Your task to perform on an android device: Show me productivity apps on the Play Store Image 0: 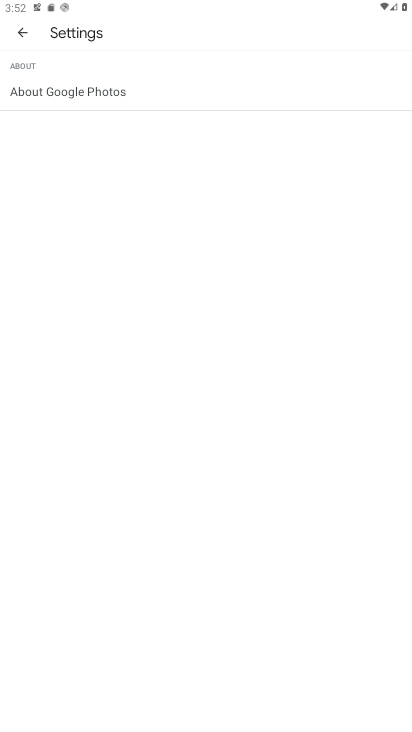
Step 0: press home button
Your task to perform on an android device: Show me productivity apps on the Play Store Image 1: 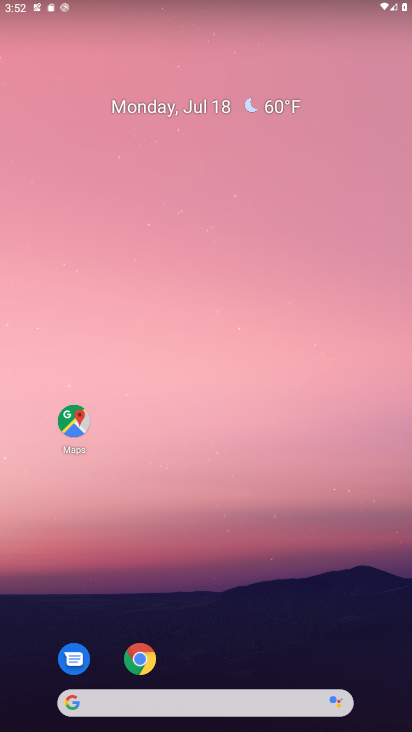
Step 1: drag from (151, 721) to (229, 56)
Your task to perform on an android device: Show me productivity apps on the Play Store Image 2: 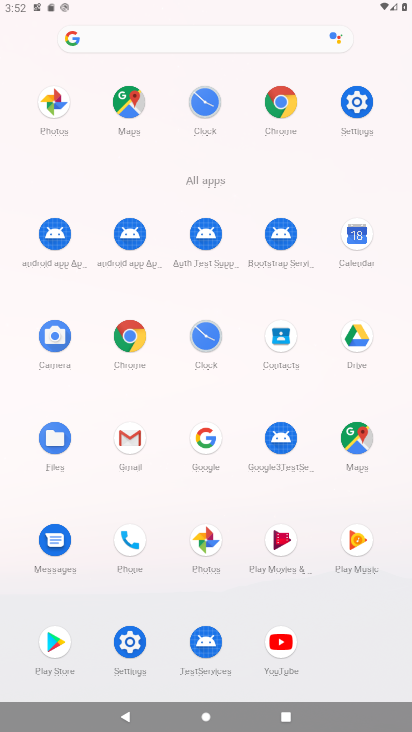
Step 2: click (61, 636)
Your task to perform on an android device: Show me productivity apps on the Play Store Image 3: 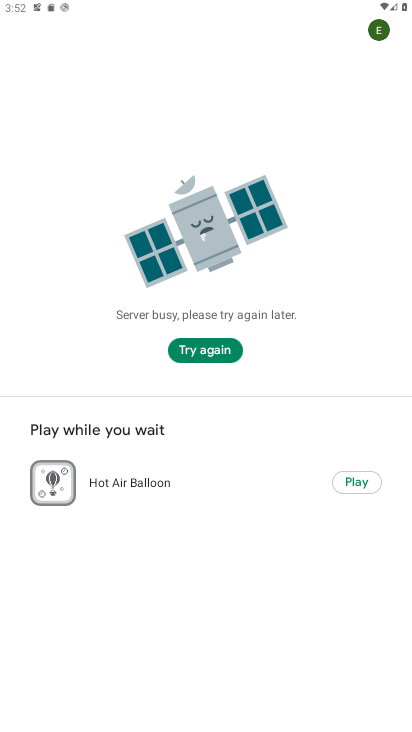
Step 3: click (193, 353)
Your task to perform on an android device: Show me productivity apps on the Play Store Image 4: 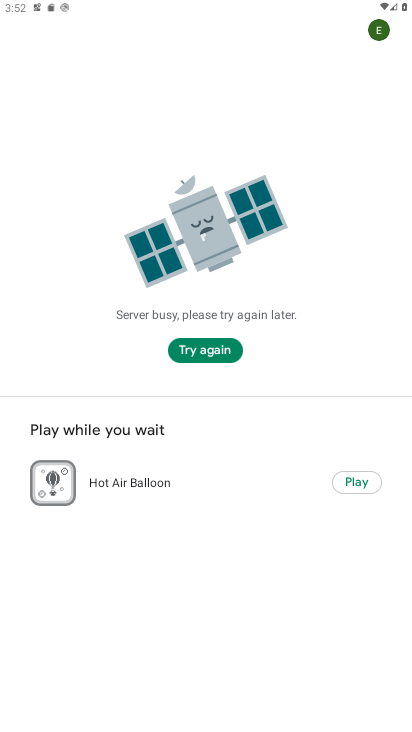
Step 4: click (193, 353)
Your task to perform on an android device: Show me productivity apps on the Play Store Image 5: 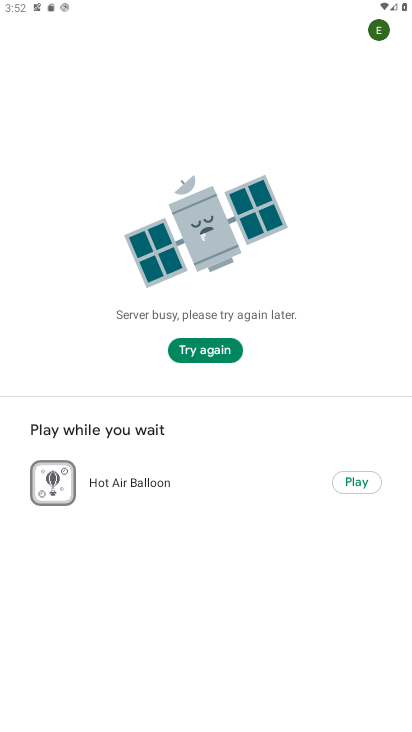
Step 5: task complete